Your task to perform on an android device: Open privacy settings Image 0: 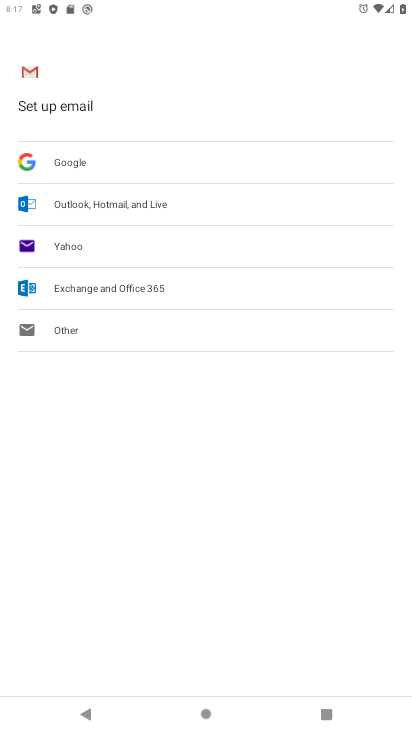
Step 0: press home button
Your task to perform on an android device: Open privacy settings Image 1: 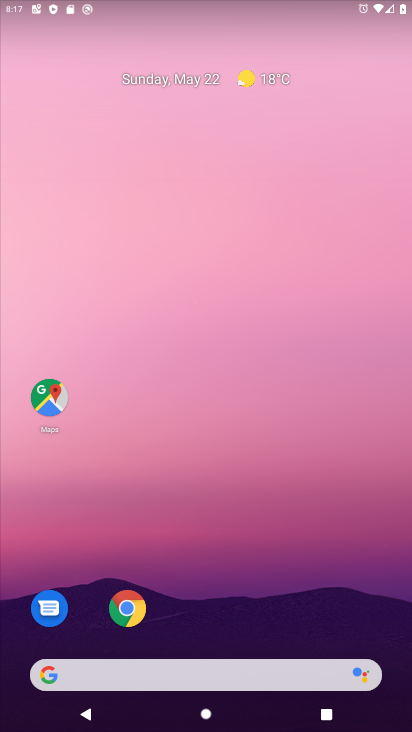
Step 1: drag from (228, 717) to (217, 187)
Your task to perform on an android device: Open privacy settings Image 2: 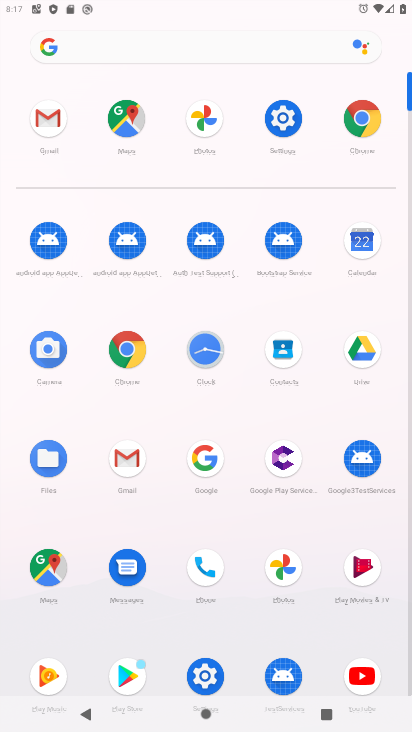
Step 2: click (285, 121)
Your task to perform on an android device: Open privacy settings Image 3: 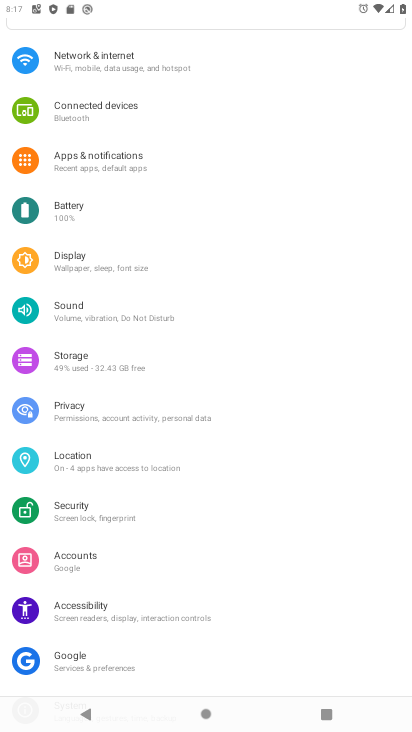
Step 3: click (70, 418)
Your task to perform on an android device: Open privacy settings Image 4: 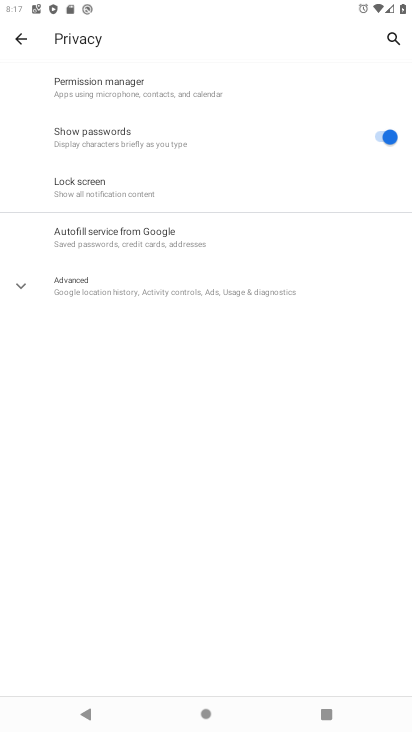
Step 4: task complete